Your task to perform on an android device: turn off location history Image 0: 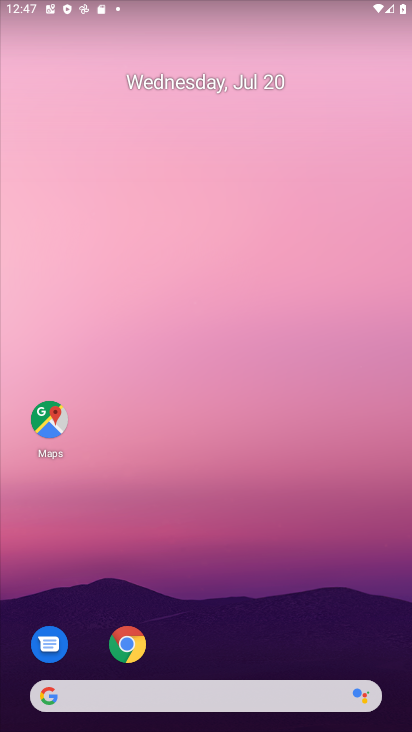
Step 0: press home button
Your task to perform on an android device: turn off location history Image 1: 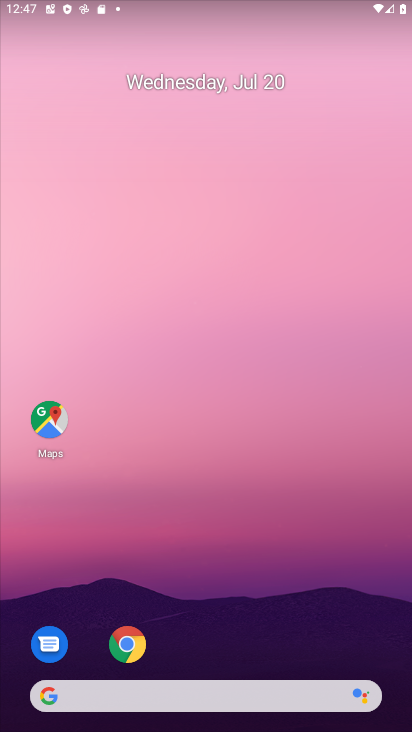
Step 1: click (51, 412)
Your task to perform on an android device: turn off location history Image 2: 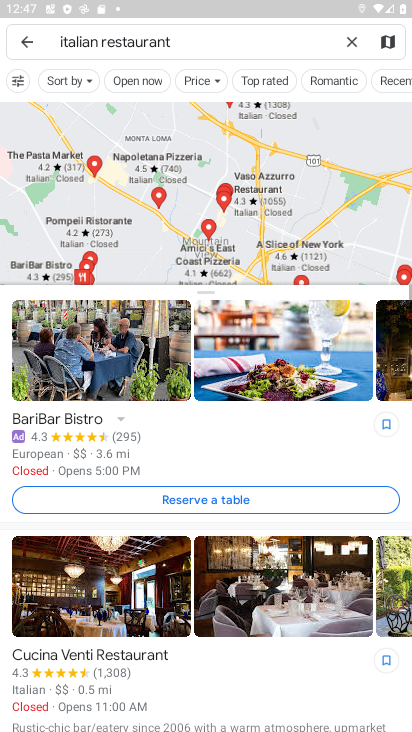
Step 2: click (23, 39)
Your task to perform on an android device: turn off location history Image 3: 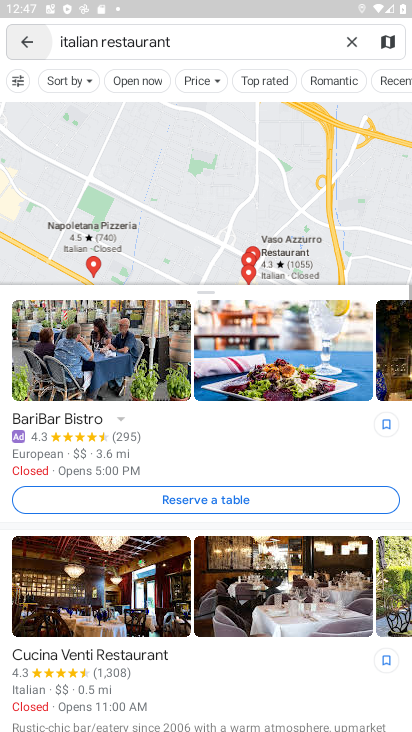
Step 3: click (23, 39)
Your task to perform on an android device: turn off location history Image 4: 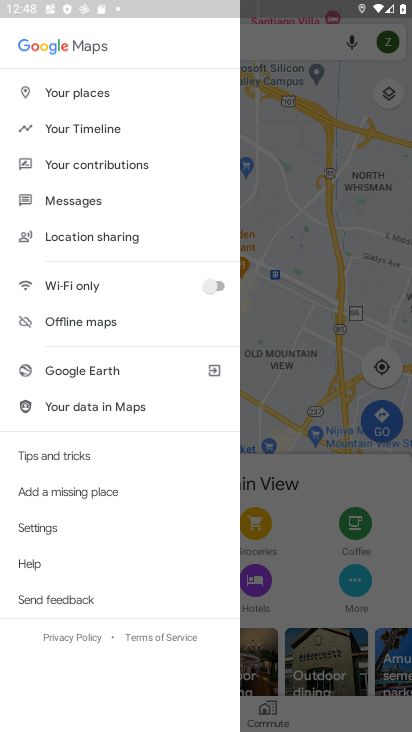
Step 4: click (70, 126)
Your task to perform on an android device: turn off location history Image 5: 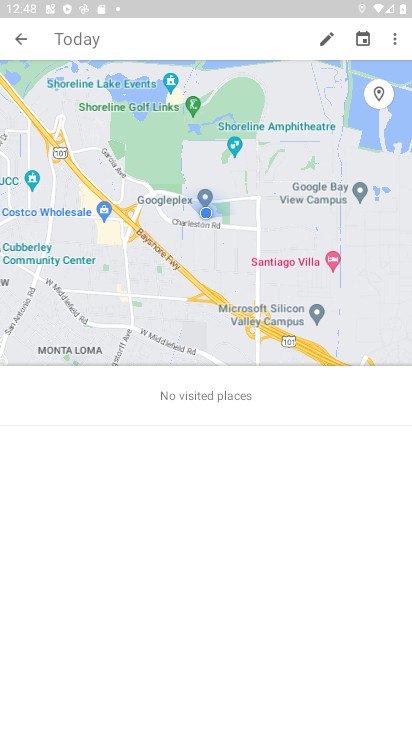
Step 5: click (396, 47)
Your task to perform on an android device: turn off location history Image 6: 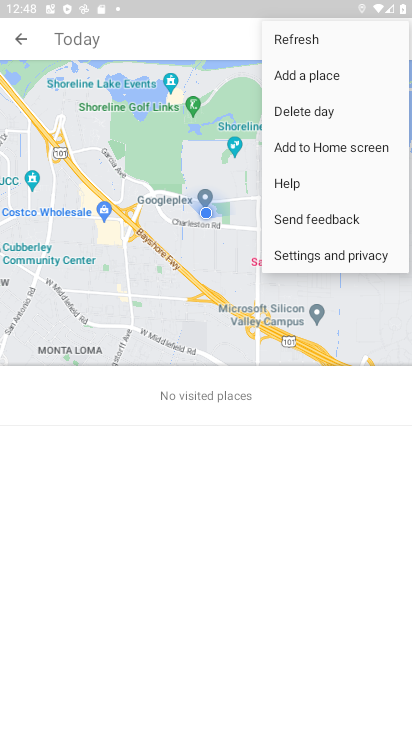
Step 6: click (305, 255)
Your task to perform on an android device: turn off location history Image 7: 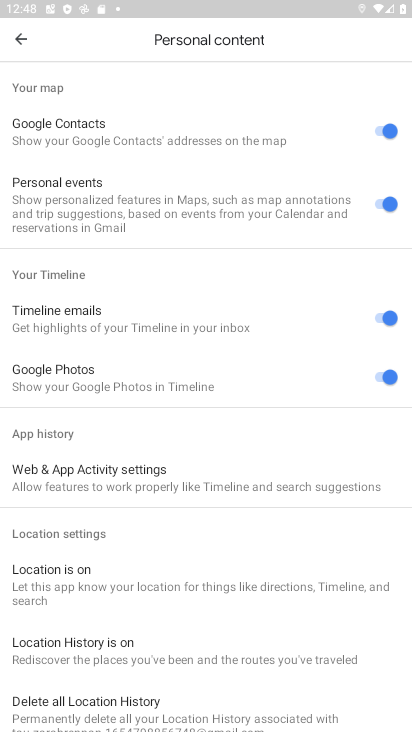
Step 7: click (79, 638)
Your task to perform on an android device: turn off location history Image 8: 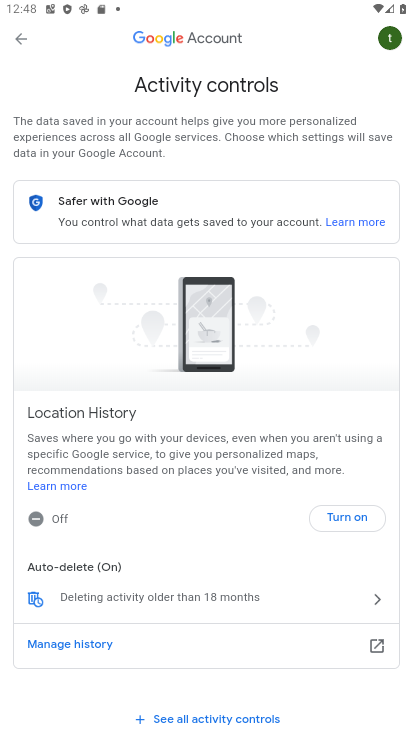
Step 8: task complete